Your task to perform on an android device: install app "Microsoft Outlook" Image 0: 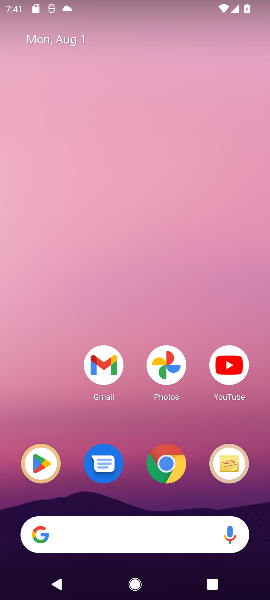
Step 0: click (42, 468)
Your task to perform on an android device: install app "Microsoft Outlook" Image 1: 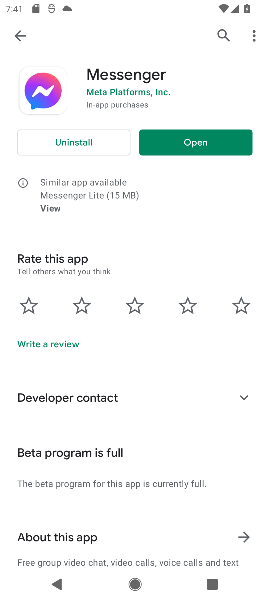
Step 1: click (20, 44)
Your task to perform on an android device: install app "Microsoft Outlook" Image 2: 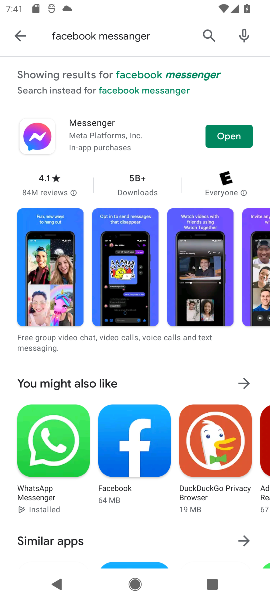
Step 2: click (20, 44)
Your task to perform on an android device: install app "Microsoft Outlook" Image 3: 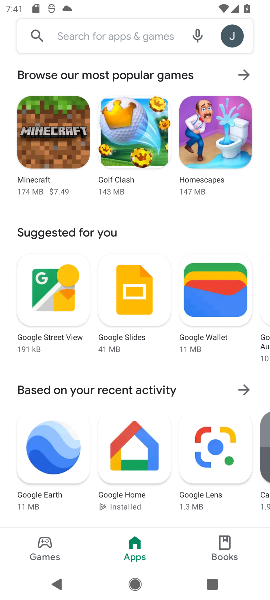
Step 3: click (125, 36)
Your task to perform on an android device: install app "Microsoft Outlook" Image 4: 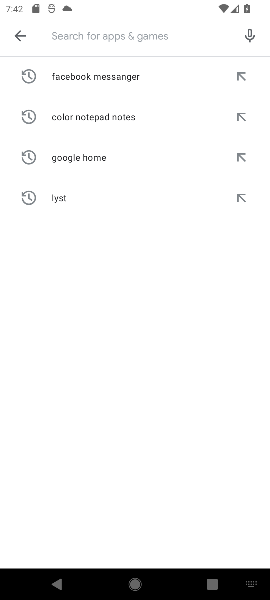
Step 4: type "microsoft"
Your task to perform on an android device: install app "Microsoft Outlook" Image 5: 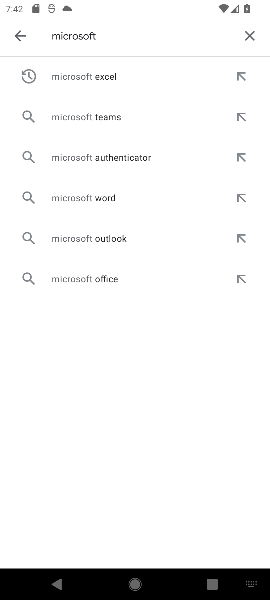
Step 5: click (188, 243)
Your task to perform on an android device: install app "Microsoft Outlook" Image 6: 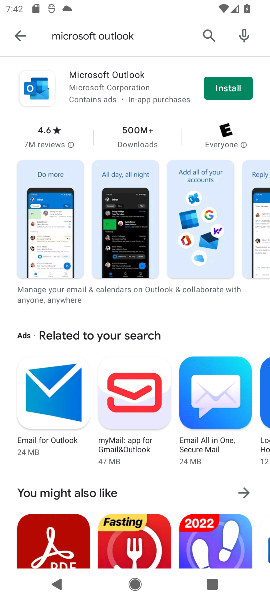
Step 6: click (230, 88)
Your task to perform on an android device: install app "Microsoft Outlook" Image 7: 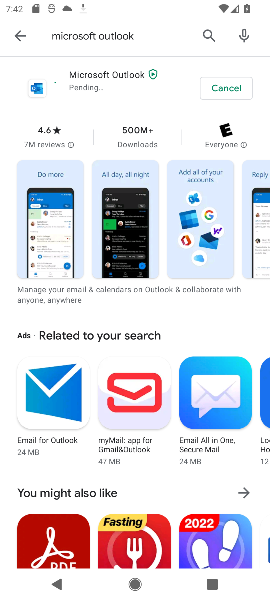
Step 7: task complete